Your task to perform on an android device: toggle sleep mode Image 0: 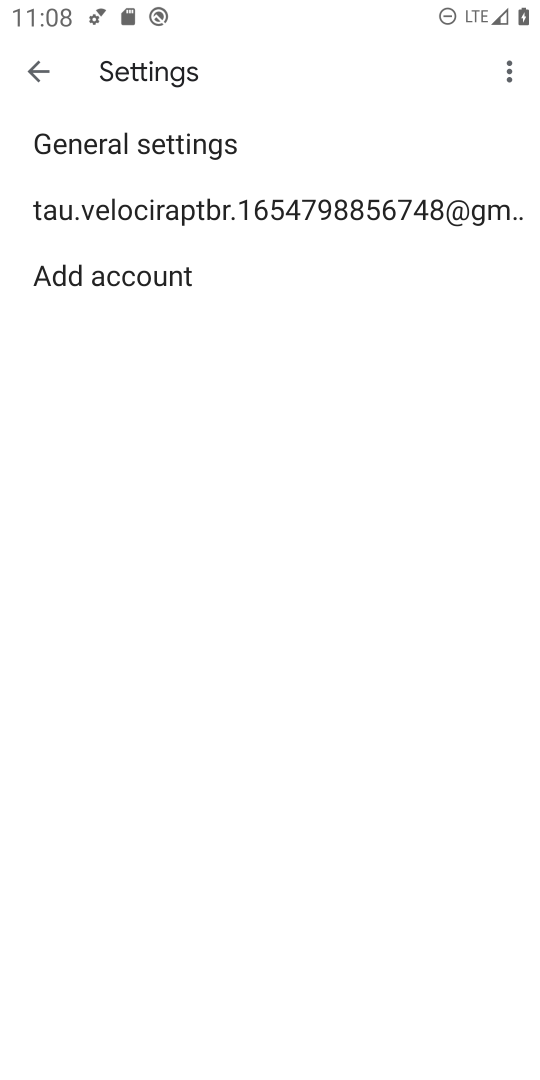
Step 0: press home button
Your task to perform on an android device: toggle sleep mode Image 1: 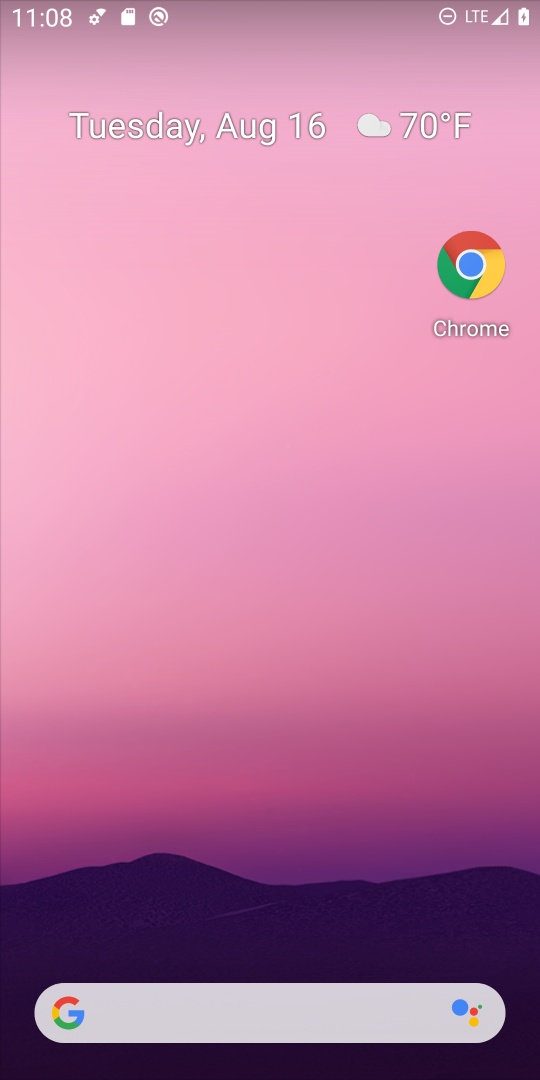
Step 1: drag from (357, 1003) to (452, 65)
Your task to perform on an android device: toggle sleep mode Image 2: 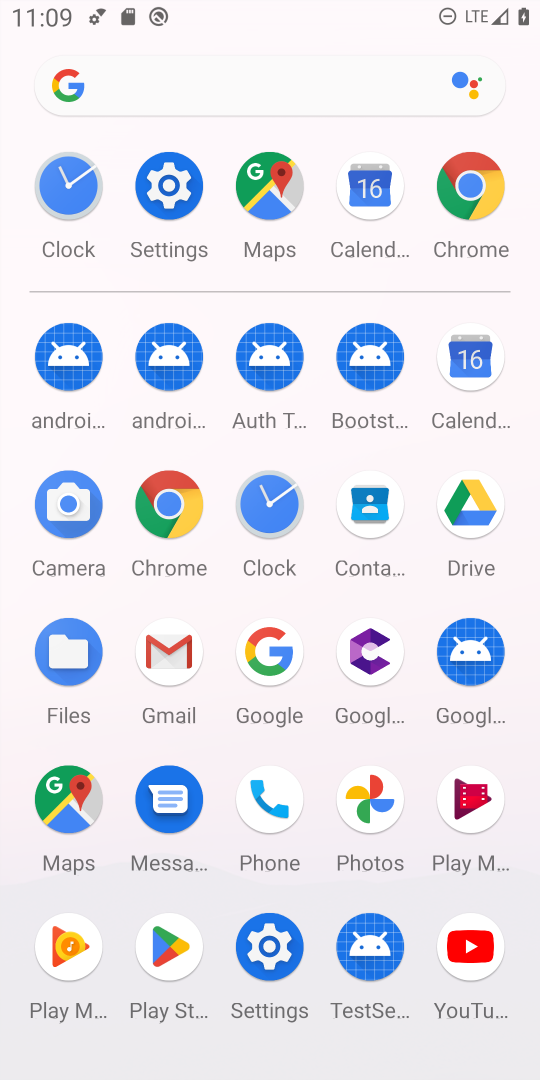
Step 2: click (173, 202)
Your task to perform on an android device: toggle sleep mode Image 3: 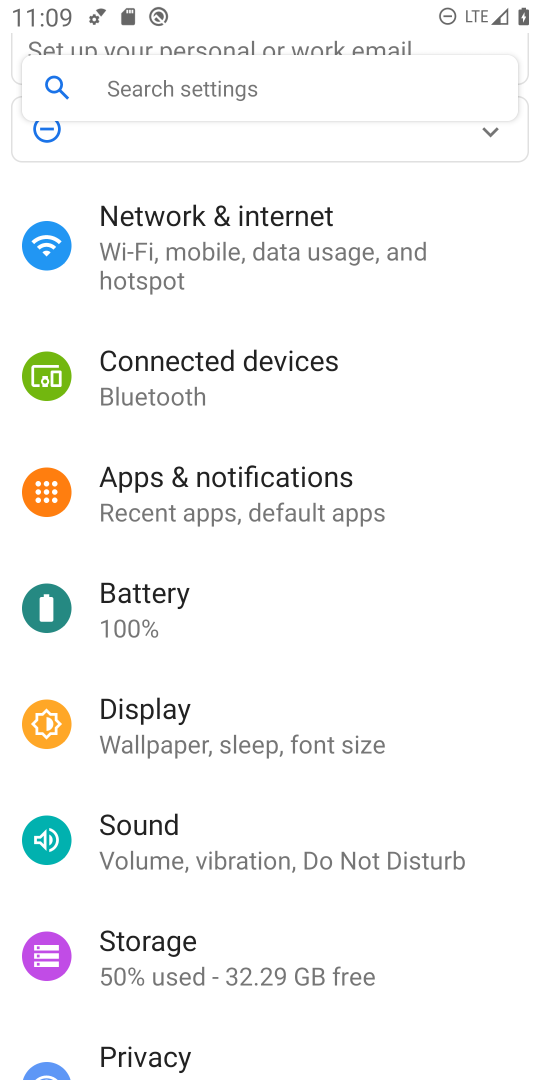
Step 3: click (179, 730)
Your task to perform on an android device: toggle sleep mode Image 4: 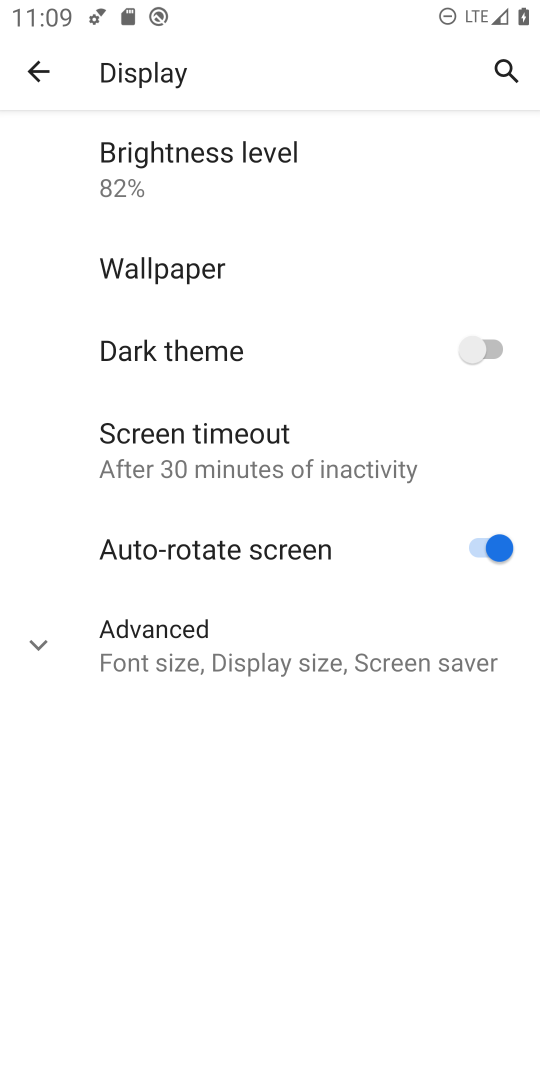
Step 4: click (171, 654)
Your task to perform on an android device: toggle sleep mode Image 5: 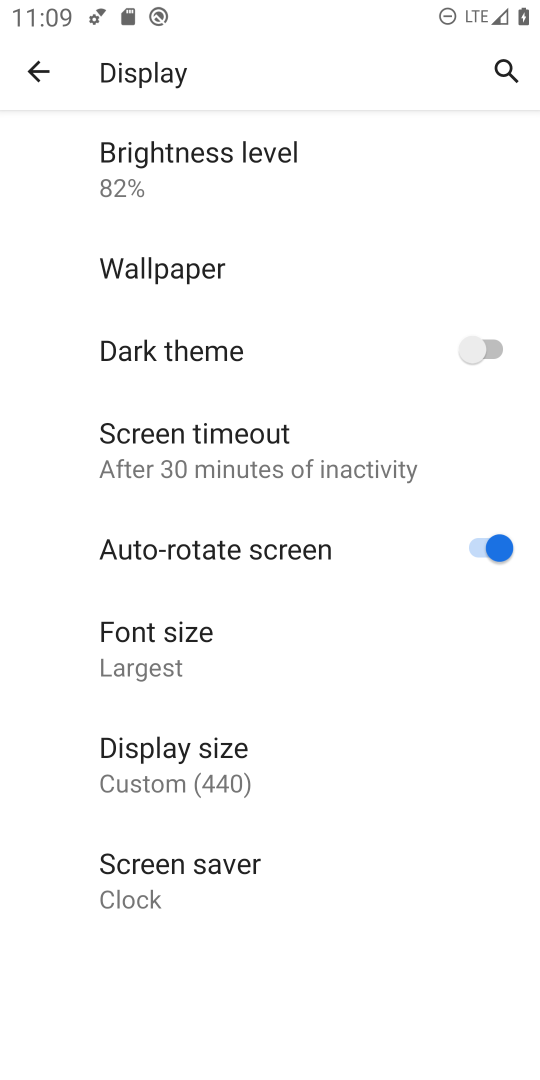
Step 5: task complete